Your task to perform on an android device: change the clock display to digital Image 0: 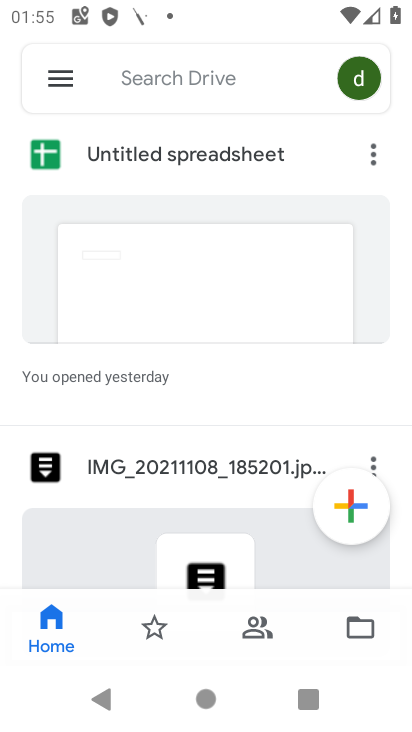
Step 0: press home button
Your task to perform on an android device: change the clock display to digital Image 1: 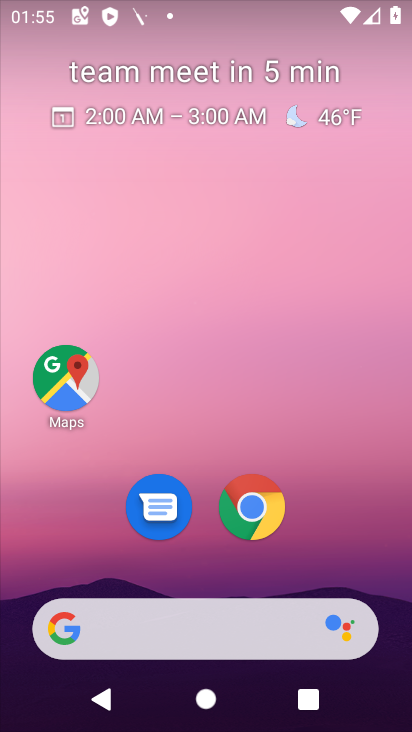
Step 1: drag from (243, 664) to (314, 241)
Your task to perform on an android device: change the clock display to digital Image 2: 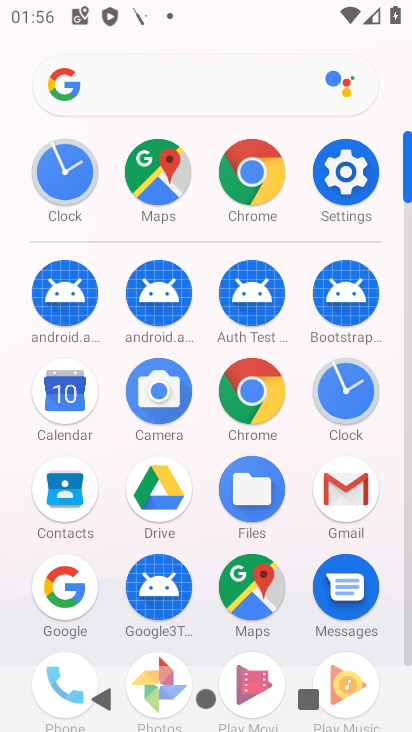
Step 2: click (350, 392)
Your task to perform on an android device: change the clock display to digital Image 3: 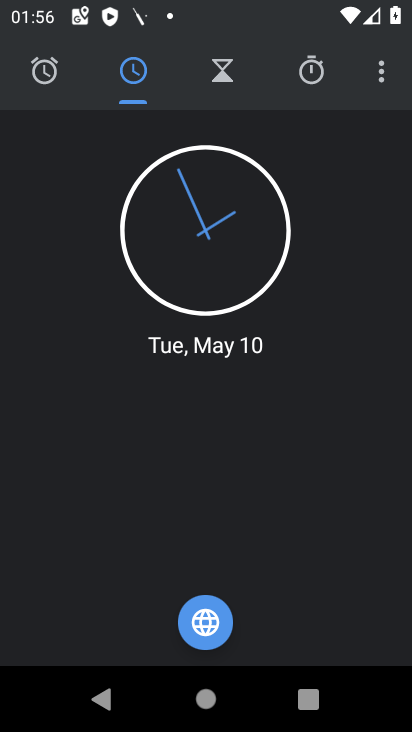
Step 3: click (394, 86)
Your task to perform on an android device: change the clock display to digital Image 4: 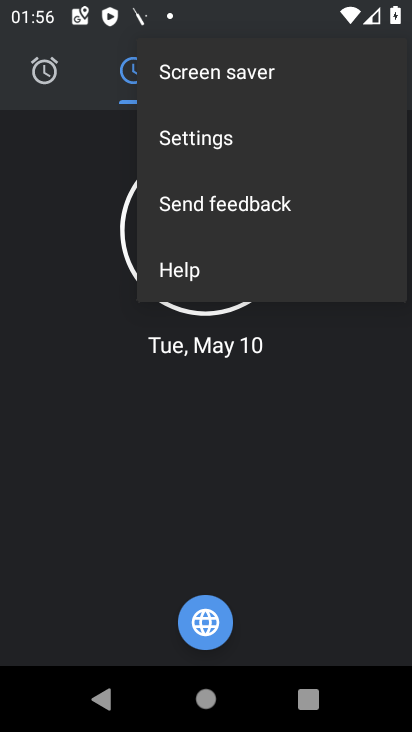
Step 4: click (234, 141)
Your task to perform on an android device: change the clock display to digital Image 5: 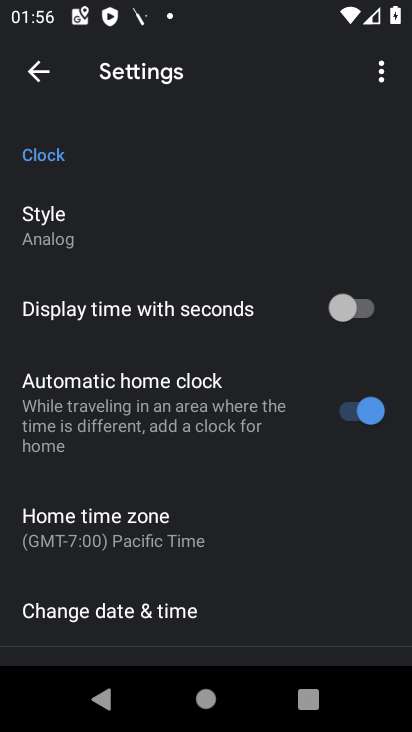
Step 5: click (102, 235)
Your task to perform on an android device: change the clock display to digital Image 6: 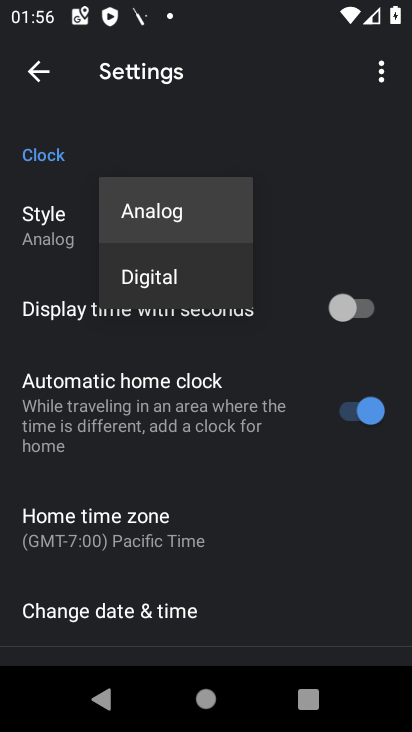
Step 6: click (149, 289)
Your task to perform on an android device: change the clock display to digital Image 7: 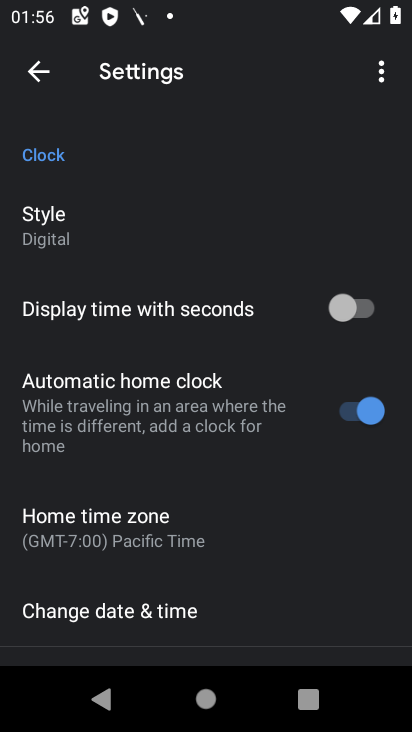
Step 7: task complete